Your task to perform on an android device: toggle wifi Image 0: 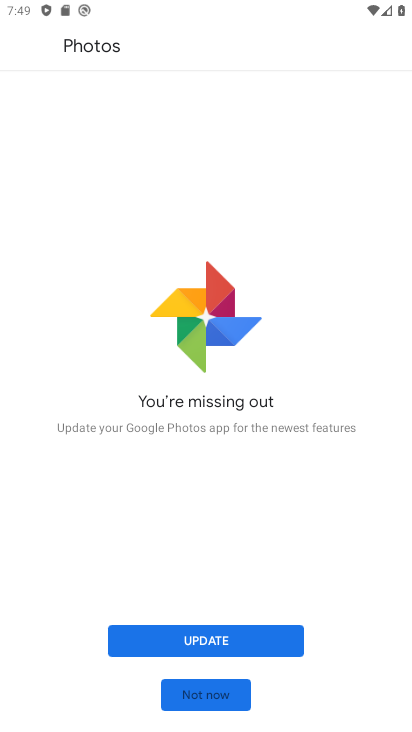
Step 0: press home button
Your task to perform on an android device: toggle wifi Image 1: 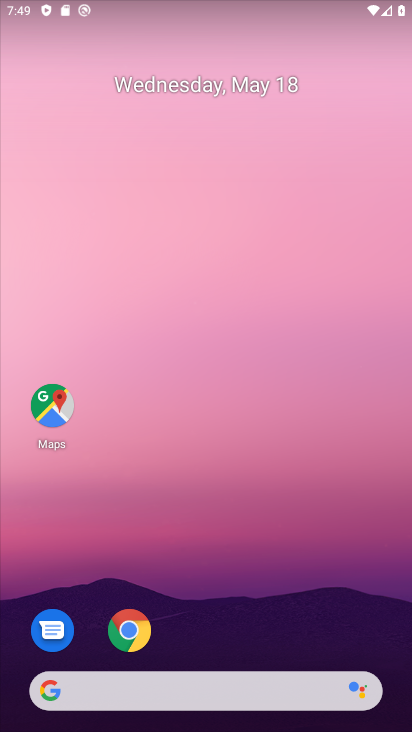
Step 1: drag from (286, 559) to (152, 32)
Your task to perform on an android device: toggle wifi Image 2: 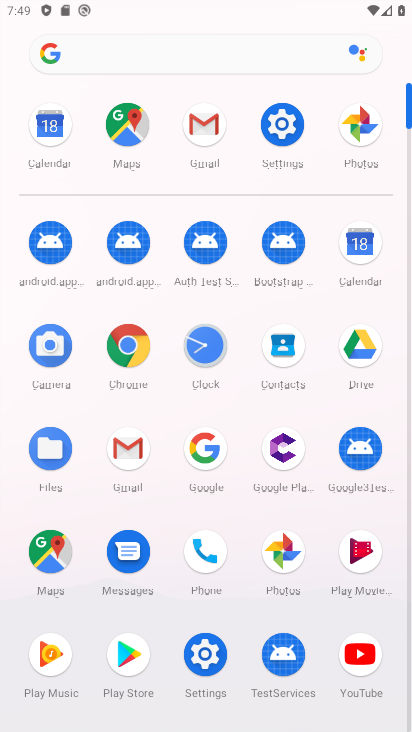
Step 2: click (281, 124)
Your task to perform on an android device: toggle wifi Image 3: 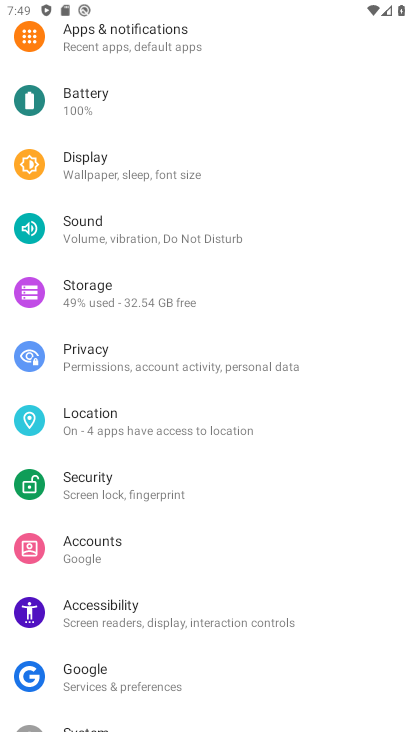
Step 3: drag from (183, 134) to (331, 700)
Your task to perform on an android device: toggle wifi Image 4: 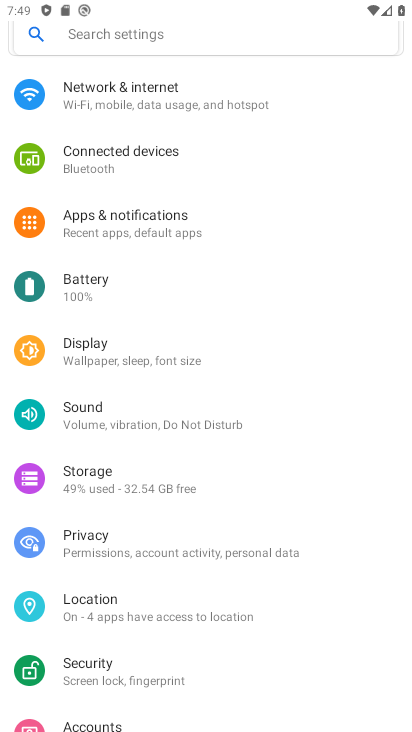
Step 4: click (121, 88)
Your task to perform on an android device: toggle wifi Image 5: 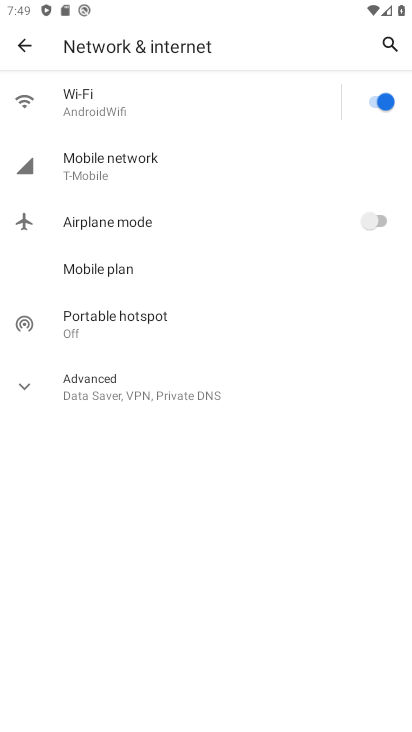
Step 5: click (386, 104)
Your task to perform on an android device: toggle wifi Image 6: 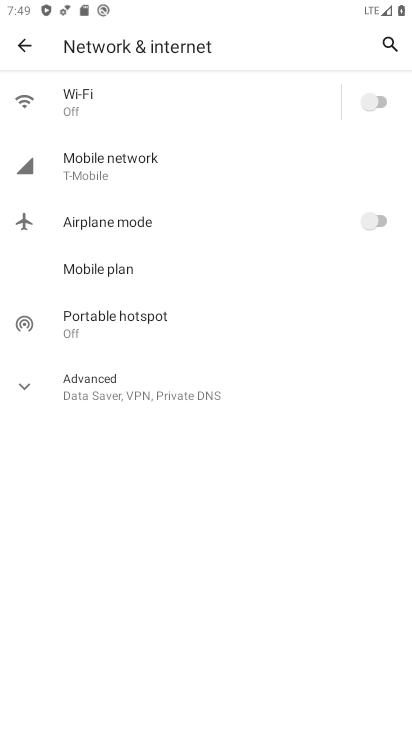
Step 6: task complete